Your task to perform on an android device: Go to Android settings Image 0: 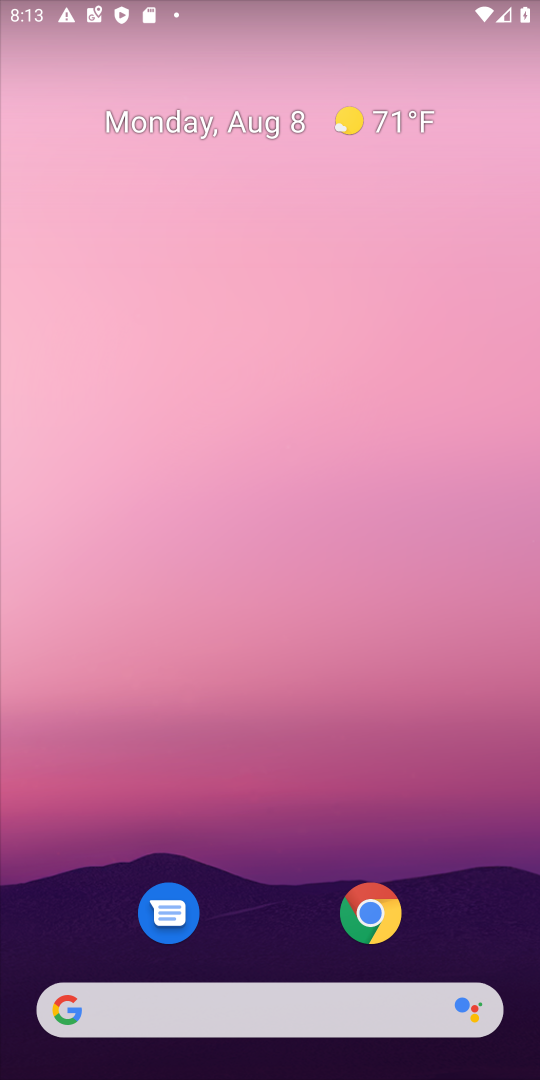
Step 0: drag from (218, 1013) to (232, 293)
Your task to perform on an android device: Go to Android settings Image 1: 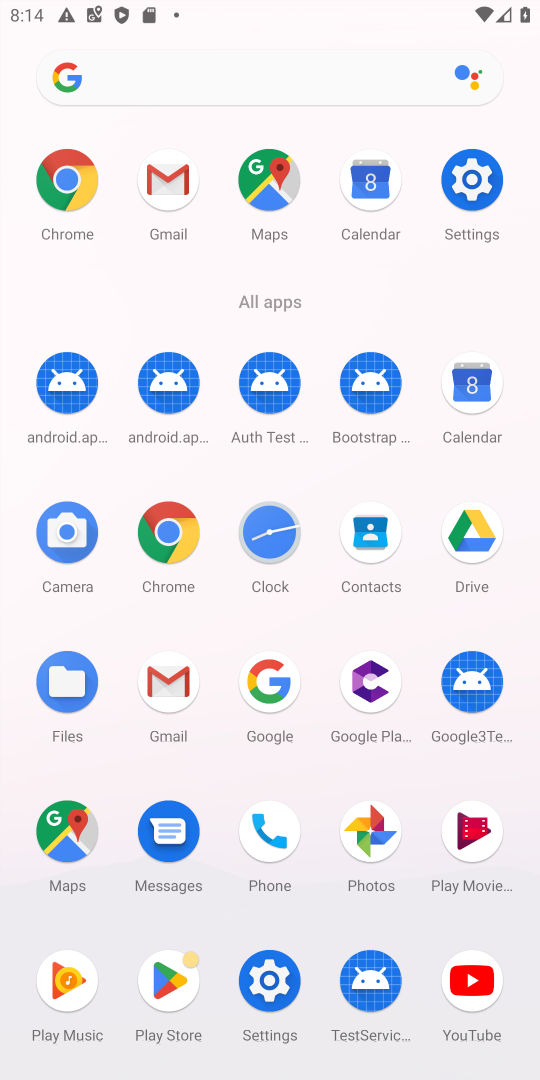
Step 1: click (471, 180)
Your task to perform on an android device: Go to Android settings Image 2: 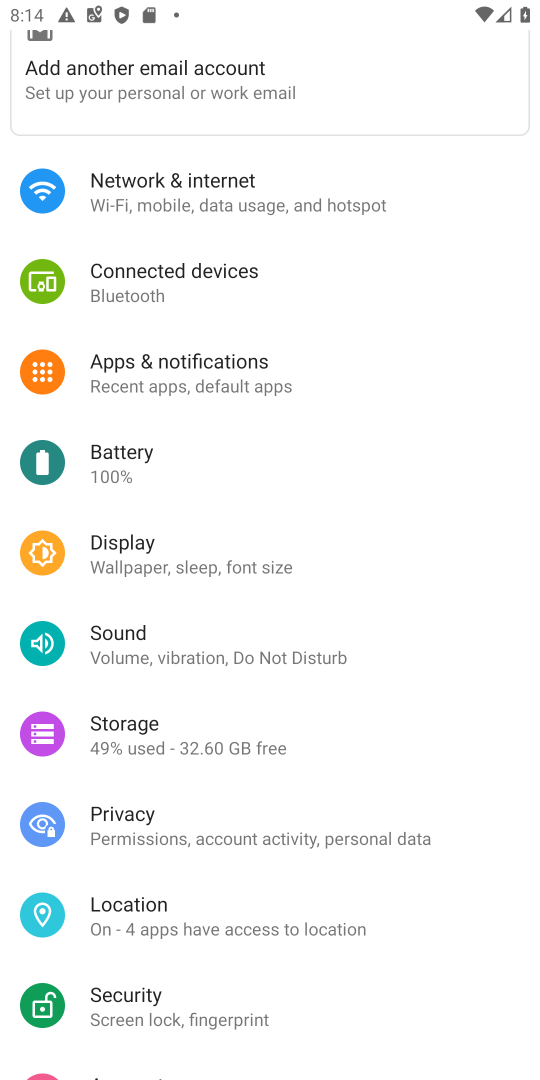
Step 2: task complete